Your task to perform on an android device: Open Reddit.com Image 0: 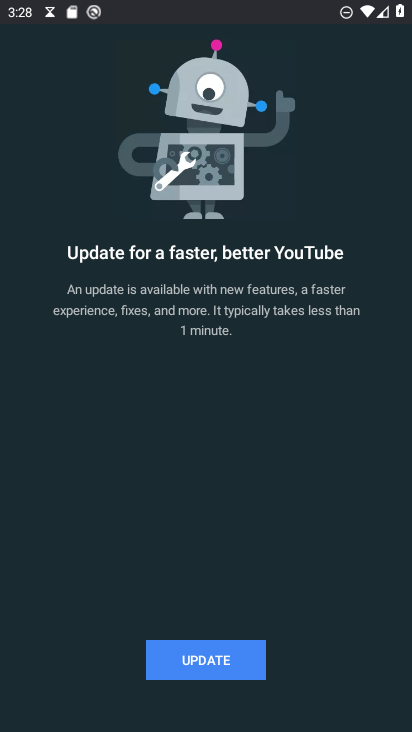
Step 0: press home button
Your task to perform on an android device: Open Reddit.com Image 1: 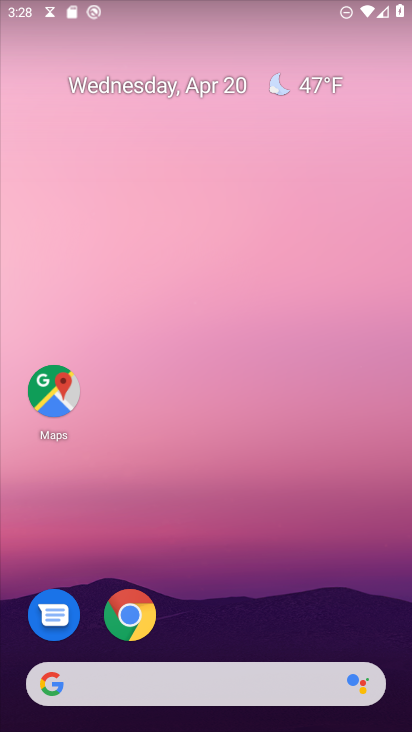
Step 1: click (127, 620)
Your task to perform on an android device: Open Reddit.com Image 2: 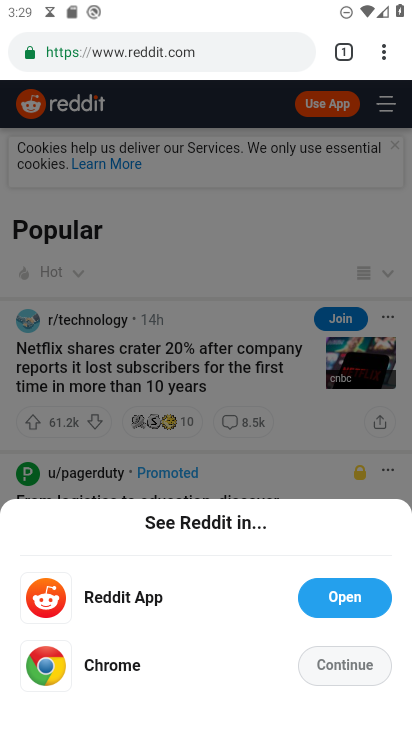
Step 2: click (326, 590)
Your task to perform on an android device: Open Reddit.com Image 3: 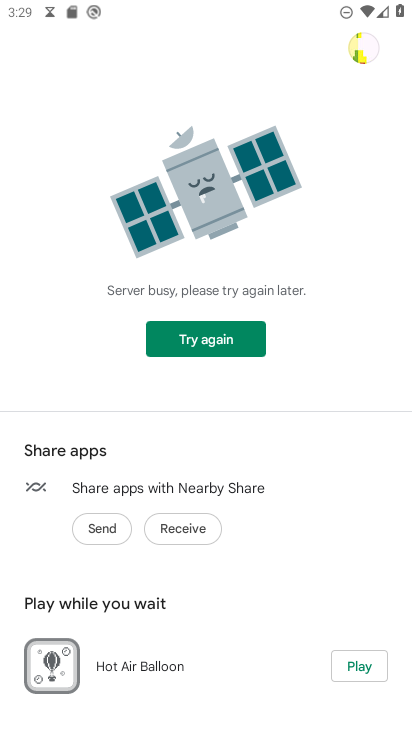
Step 3: click (220, 341)
Your task to perform on an android device: Open Reddit.com Image 4: 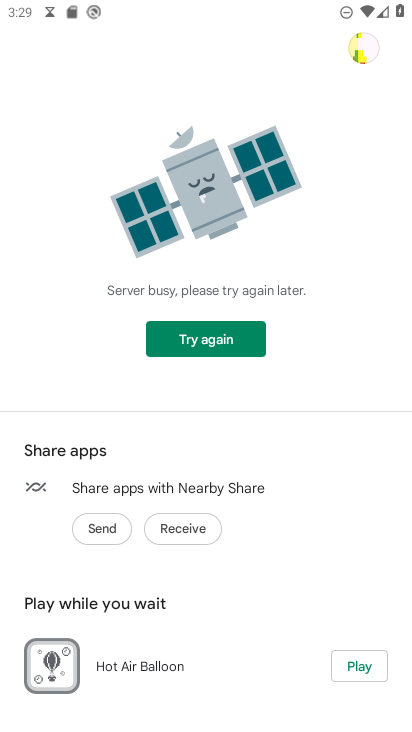
Step 4: press back button
Your task to perform on an android device: Open Reddit.com Image 5: 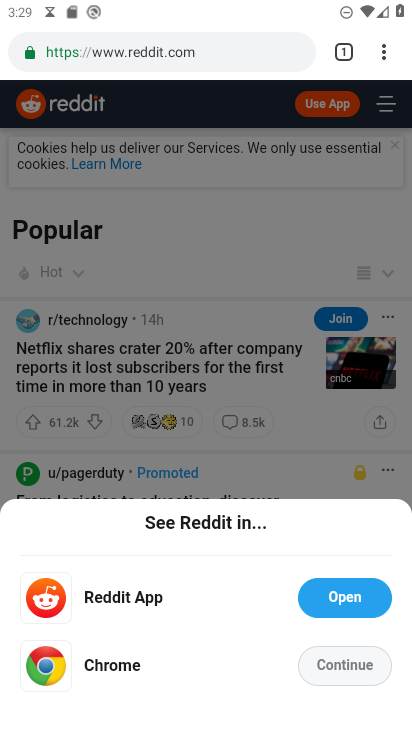
Step 5: click (287, 430)
Your task to perform on an android device: Open Reddit.com Image 6: 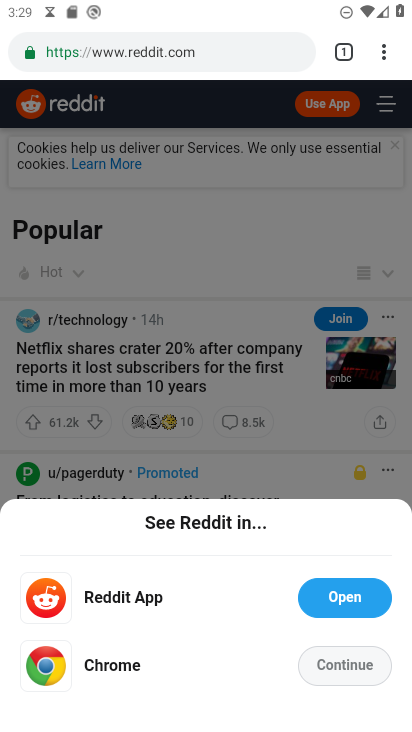
Step 6: click (336, 655)
Your task to perform on an android device: Open Reddit.com Image 7: 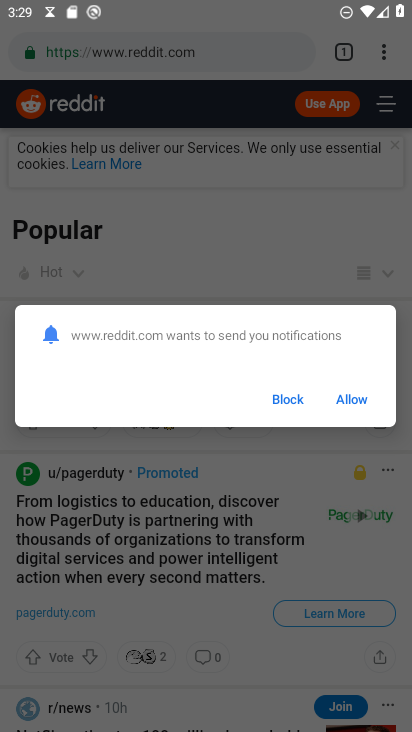
Step 7: click (348, 394)
Your task to perform on an android device: Open Reddit.com Image 8: 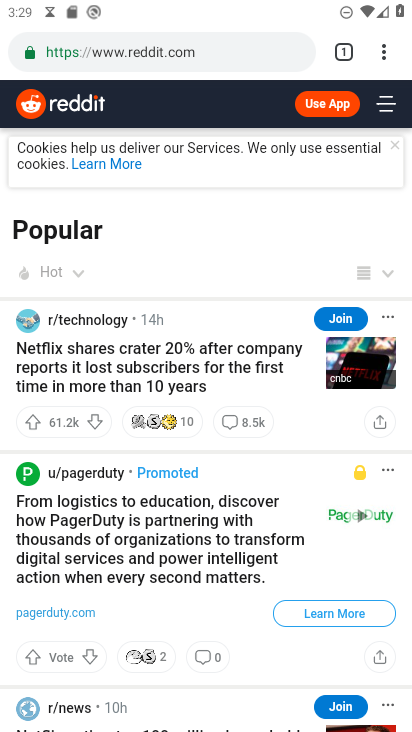
Step 8: task complete